Your task to perform on an android device: Go to Google Image 0: 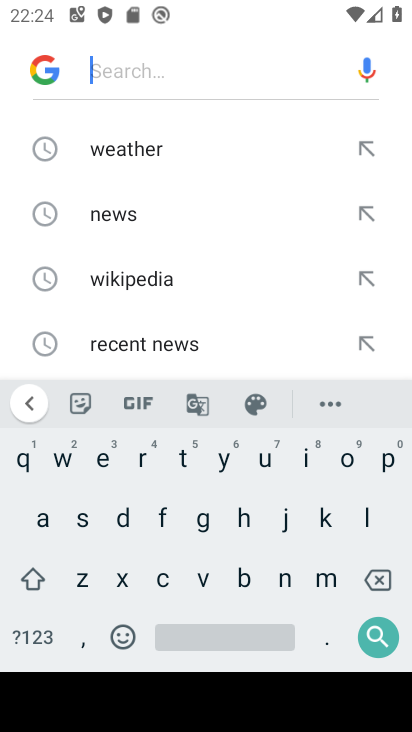
Step 0: press home button
Your task to perform on an android device: Go to Google Image 1: 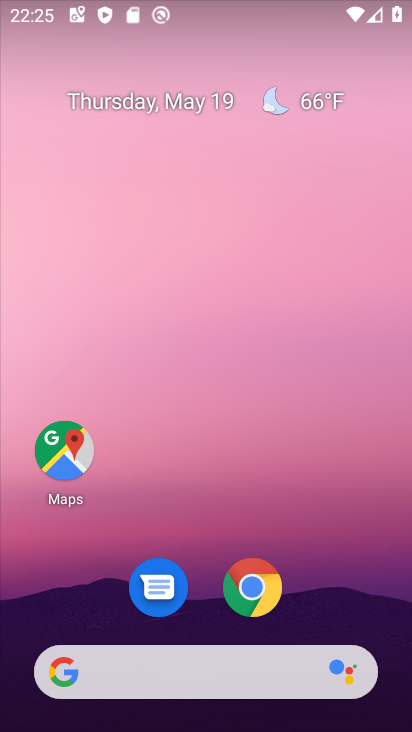
Step 1: drag from (251, 711) to (366, 38)
Your task to perform on an android device: Go to Google Image 2: 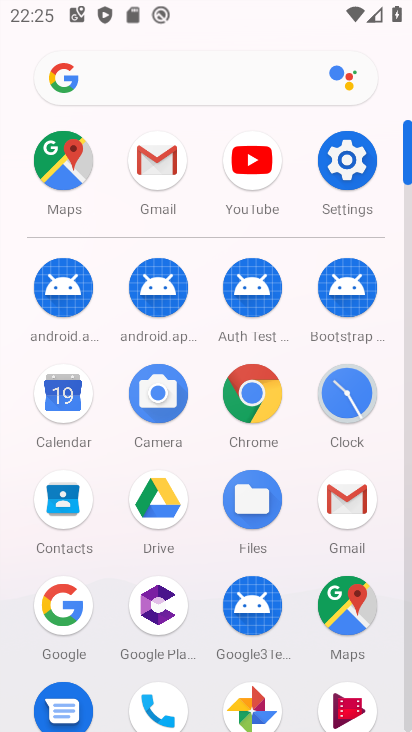
Step 2: click (66, 75)
Your task to perform on an android device: Go to Google Image 3: 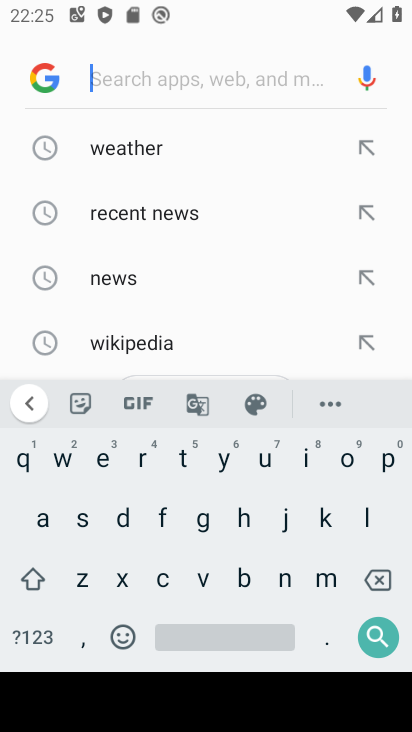
Step 3: click (42, 66)
Your task to perform on an android device: Go to Google Image 4: 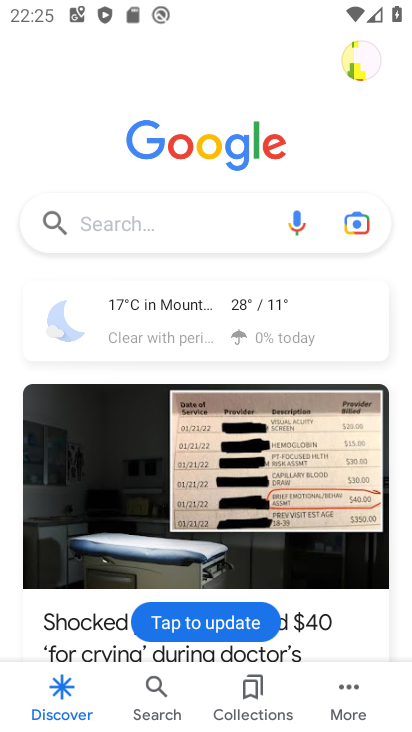
Step 4: task complete